Your task to perform on an android device: Is it going to rain tomorrow? Image 0: 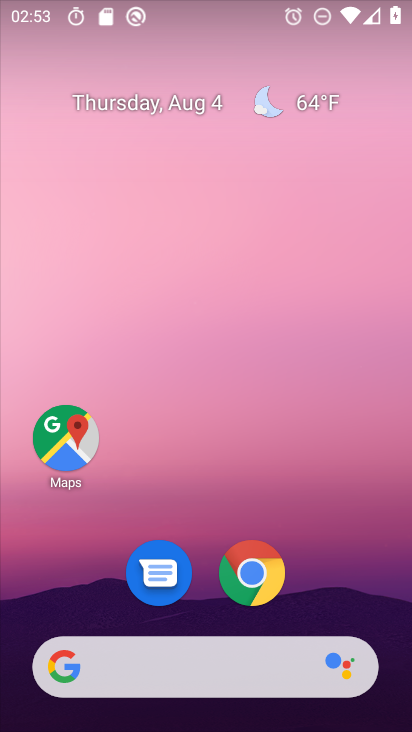
Step 0: click (319, 102)
Your task to perform on an android device: Is it going to rain tomorrow? Image 1: 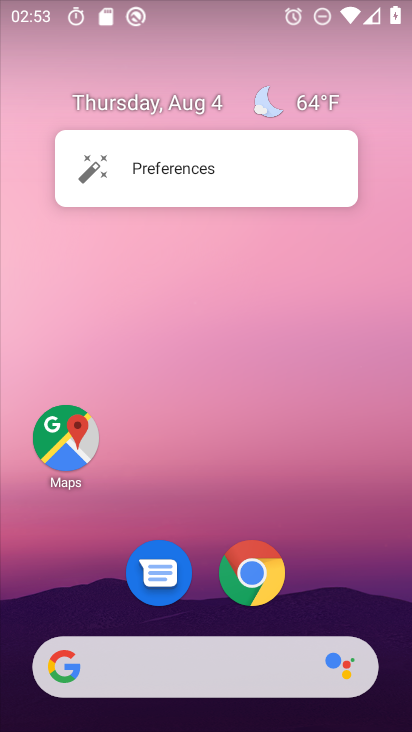
Step 1: click (319, 102)
Your task to perform on an android device: Is it going to rain tomorrow? Image 2: 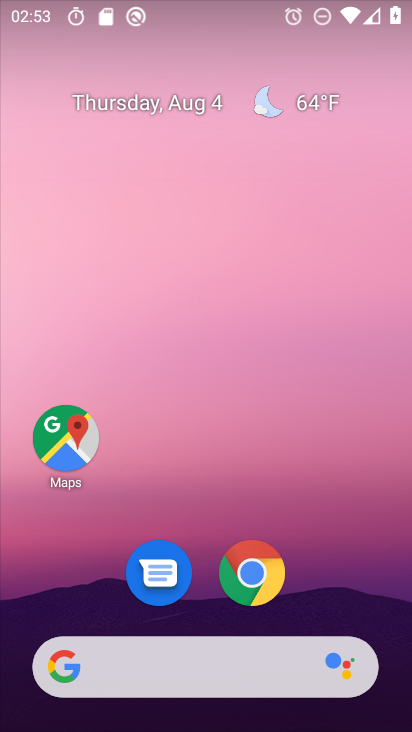
Step 2: click (327, 109)
Your task to perform on an android device: Is it going to rain tomorrow? Image 3: 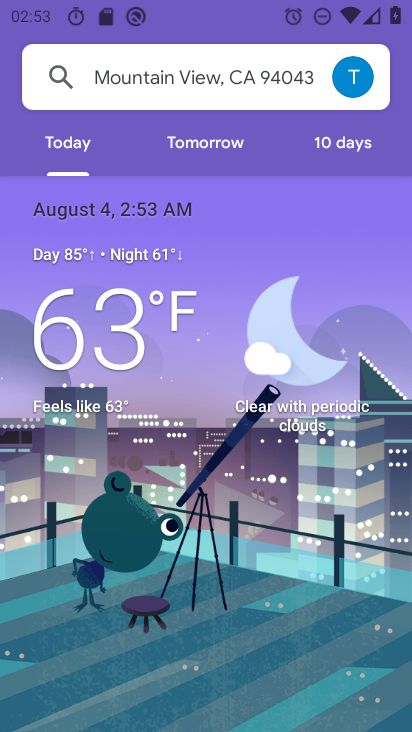
Step 3: click (219, 138)
Your task to perform on an android device: Is it going to rain tomorrow? Image 4: 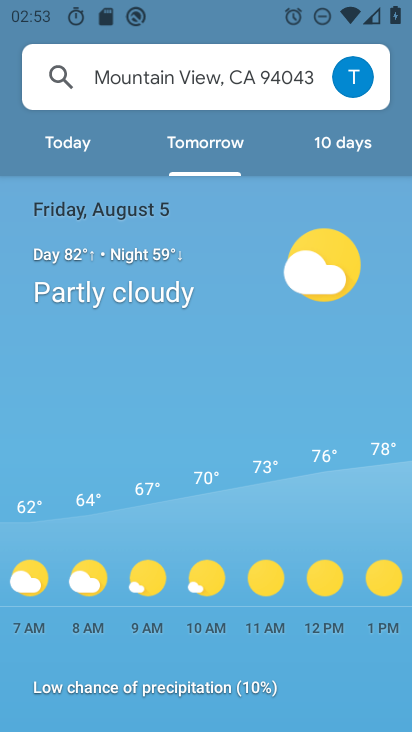
Step 4: task complete